Your task to perform on an android device: change timer sound Image 0: 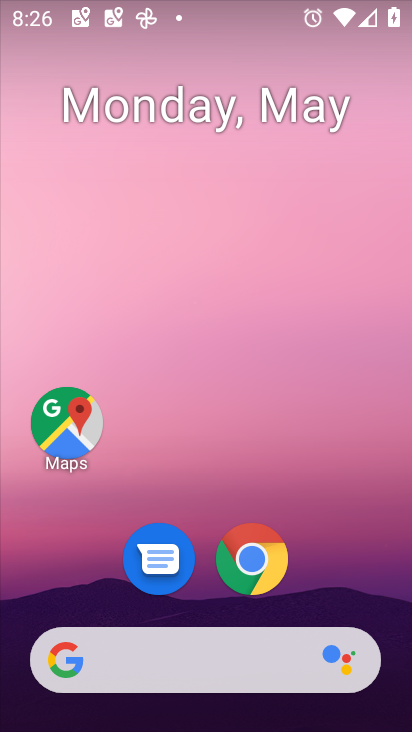
Step 0: drag from (404, 656) to (336, 82)
Your task to perform on an android device: change timer sound Image 1: 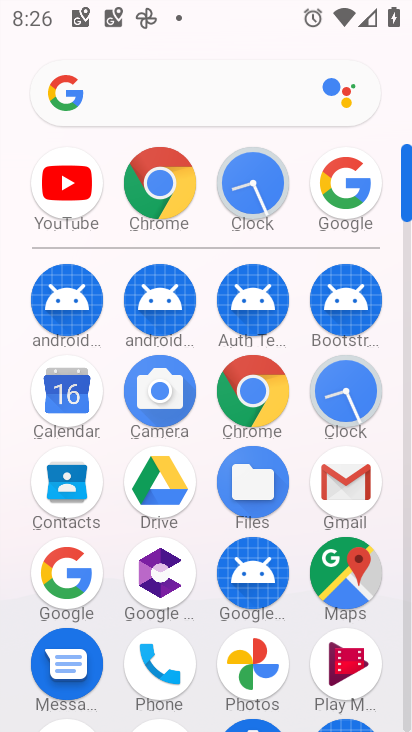
Step 1: click (358, 404)
Your task to perform on an android device: change timer sound Image 2: 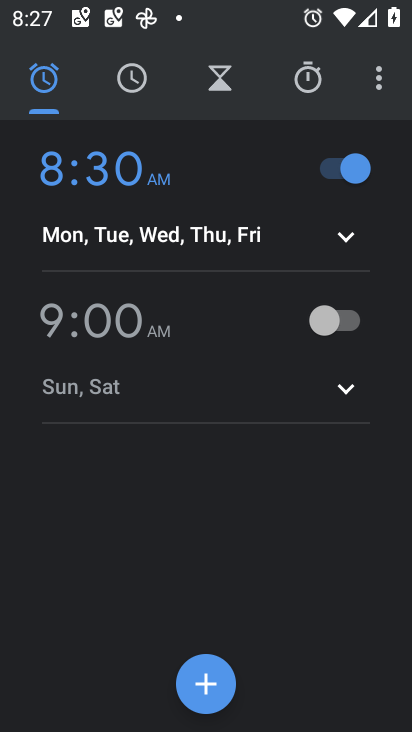
Step 2: click (356, 104)
Your task to perform on an android device: change timer sound Image 3: 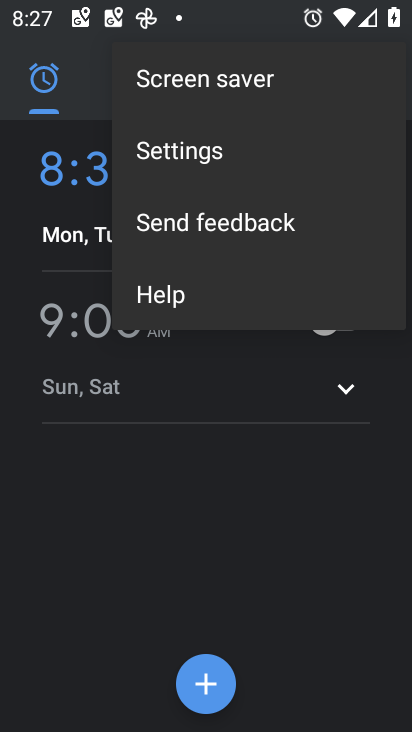
Step 3: click (270, 155)
Your task to perform on an android device: change timer sound Image 4: 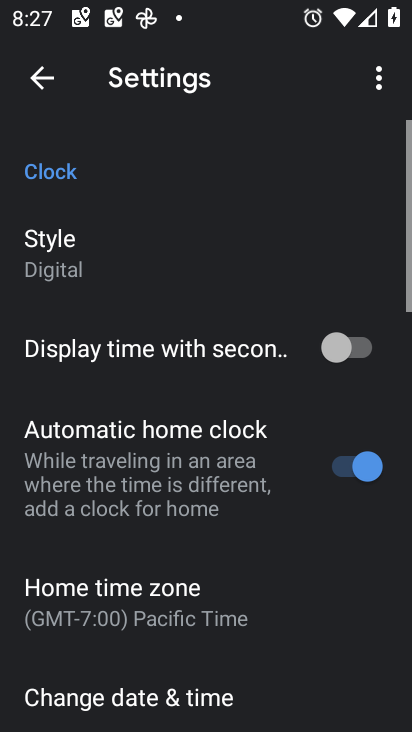
Step 4: drag from (214, 642) to (255, 187)
Your task to perform on an android device: change timer sound Image 5: 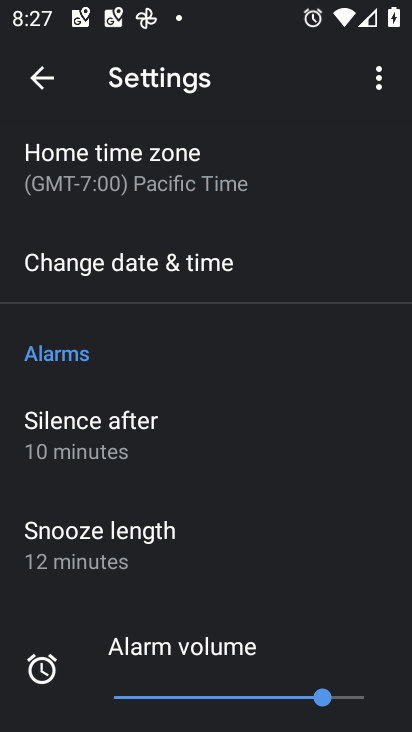
Step 5: drag from (156, 562) to (206, 153)
Your task to perform on an android device: change timer sound Image 6: 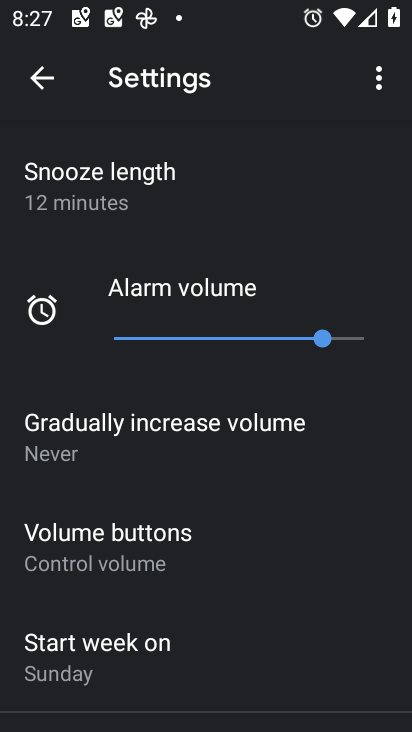
Step 6: drag from (166, 659) to (208, 220)
Your task to perform on an android device: change timer sound Image 7: 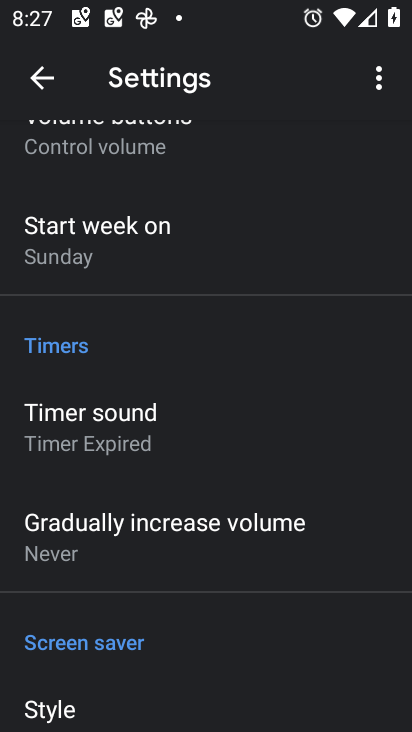
Step 7: click (159, 446)
Your task to perform on an android device: change timer sound Image 8: 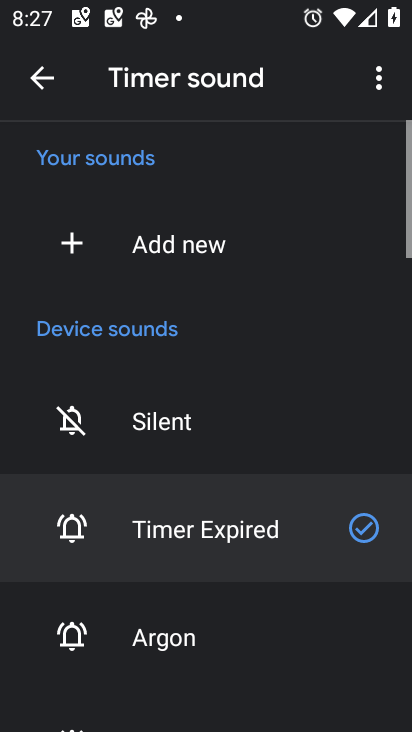
Step 8: drag from (226, 661) to (261, 249)
Your task to perform on an android device: change timer sound Image 9: 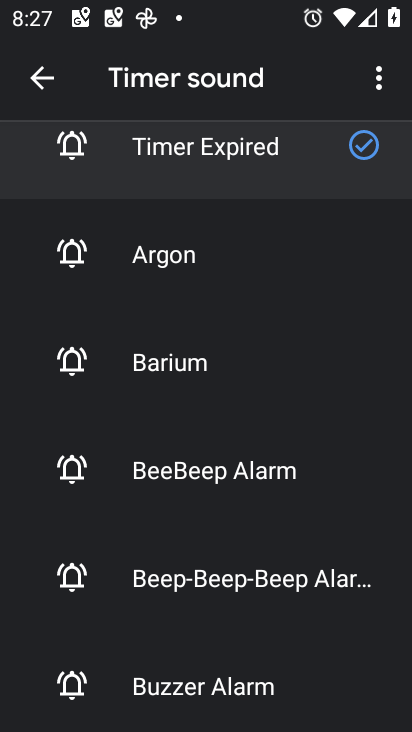
Step 9: click (231, 488)
Your task to perform on an android device: change timer sound Image 10: 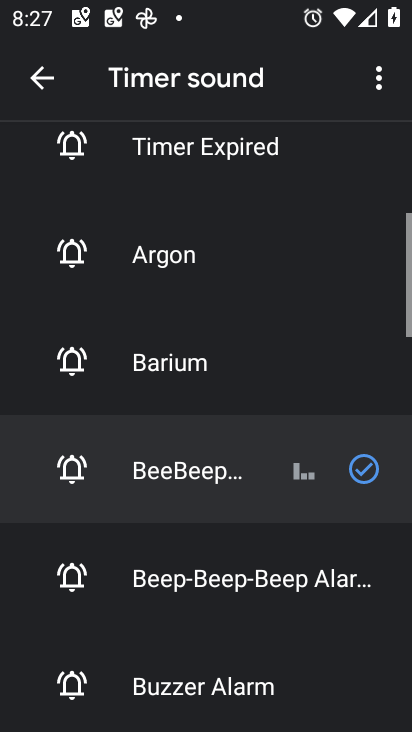
Step 10: task complete